Your task to perform on an android device: change your default location settings in chrome Image 0: 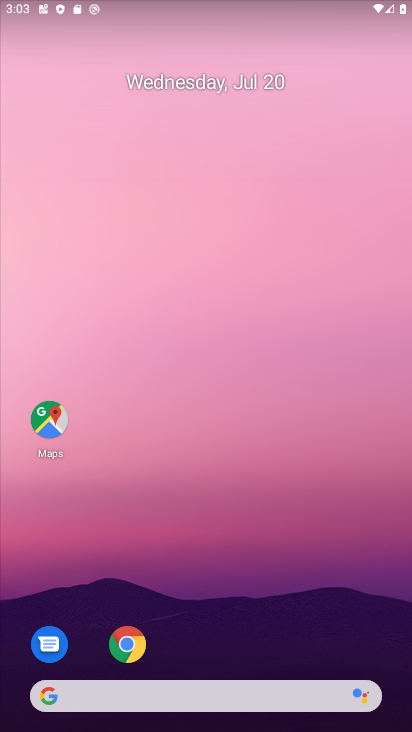
Step 0: click (136, 647)
Your task to perform on an android device: change your default location settings in chrome Image 1: 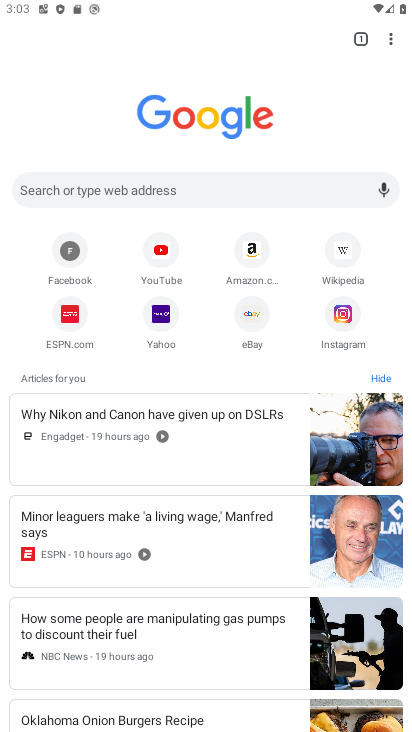
Step 1: click (382, 39)
Your task to perform on an android device: change your default location settings in chrome Image 2: 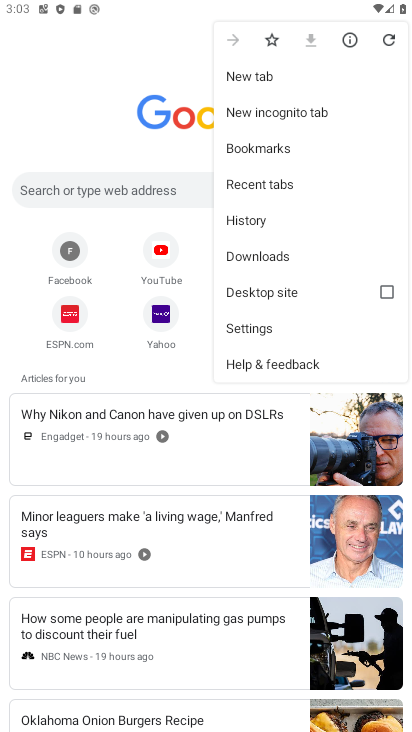
Step 2: click (269, 332)
Your task to perform on an android device: change your default location settings in chrome Image 3: 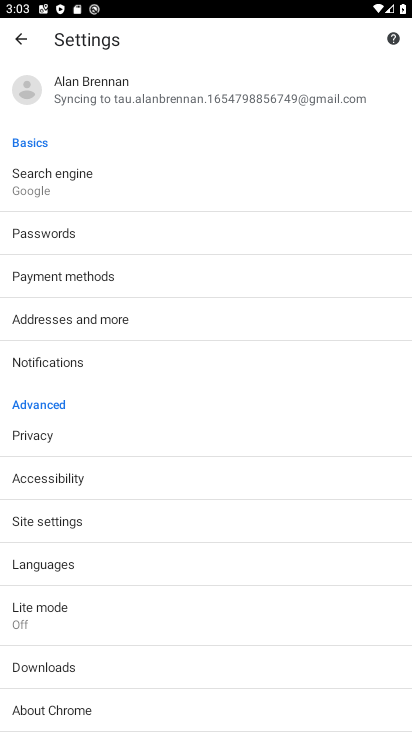
Step 3: click (75, 314)
Your task to perform on an android device: change your default location settings in chrome Image 4: 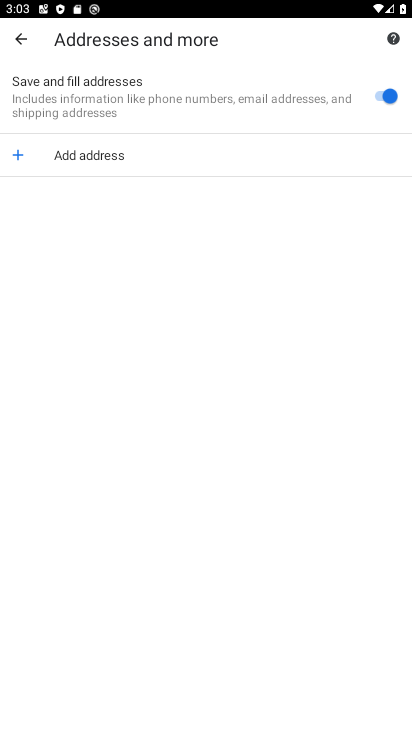
Step 4: task complete